Your task to perform on an android device: Open calendar and show me the fourth week of next month Image 0: 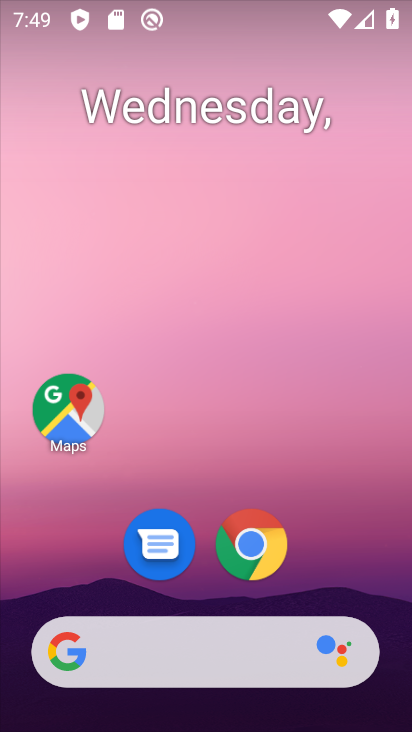
Step 0: drag from (241, 637) to (250, 148)
Your task to perform on an android device: Open calendar and show me the fourth week of next month Image 1: 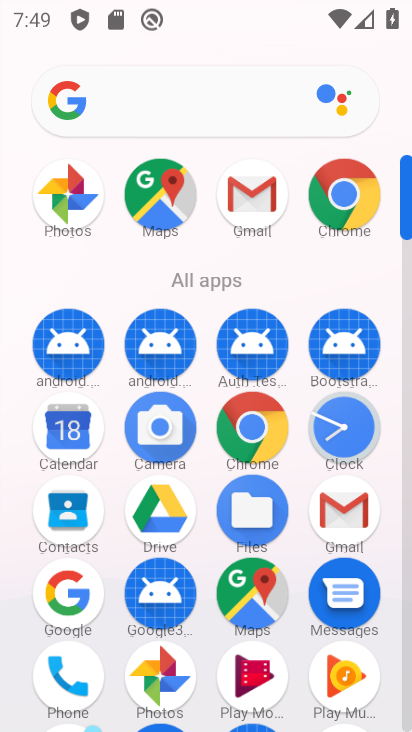
Step 1: click (69, 428)
Your task to perform on an android device: Open calendar and show me the fourth week of next month Image 2: 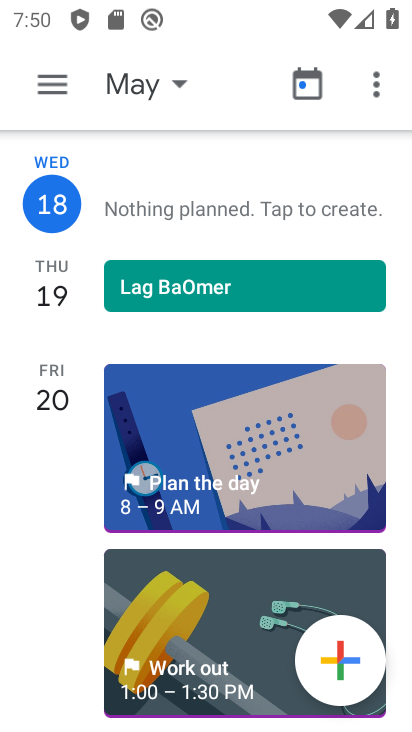
Step 2: click (168, 81)
Your task to perform on an android device: Open calendar and show me the fourth week of next month Image 3: 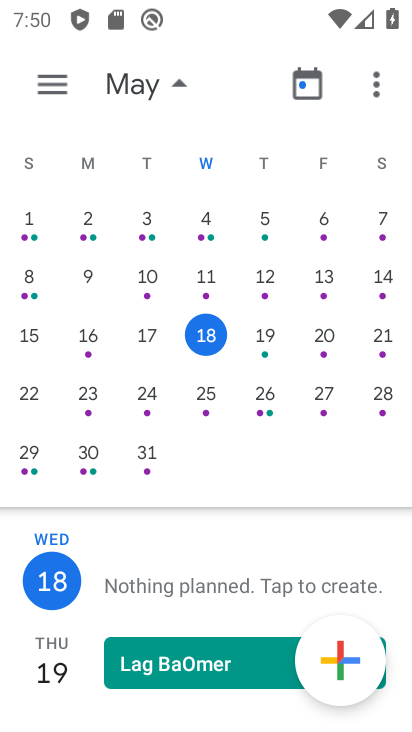
Step 3: drag from (368, 314) to (20, 370)
Your task to perform on an android device: Open calendar and show me the fourth week of next month Image 4: 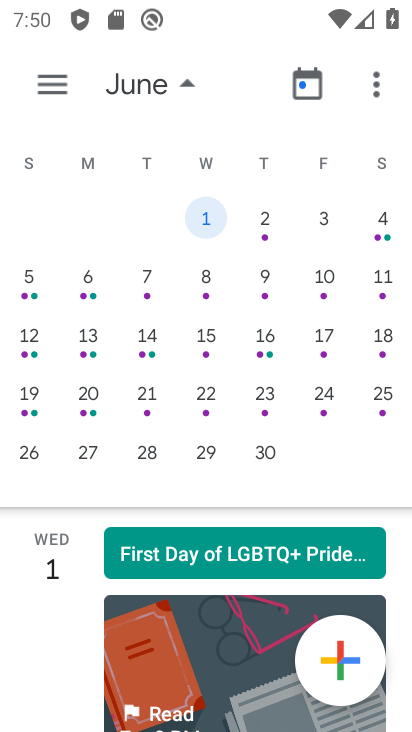
Step 4: click (88, 453)
Your task to perform on an android device: Open calendar and show me the fourth week of next month Image 5: 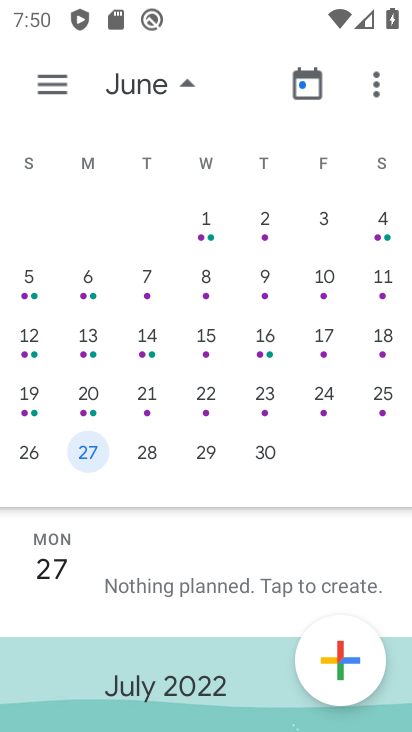
Step 5: task complete